Your task to perform on an android device: Is it going to rain today? Image 0: 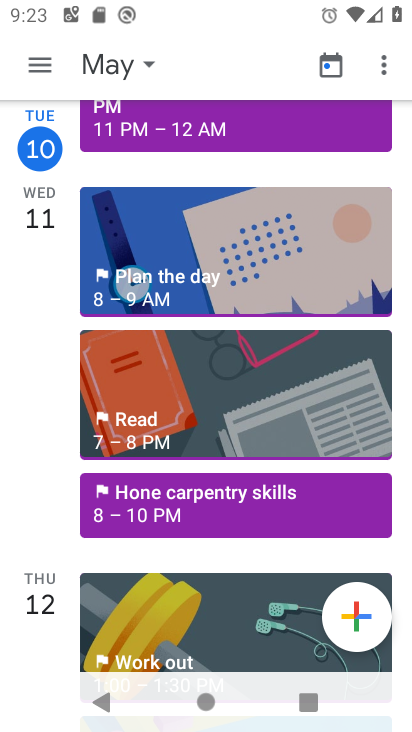
Step 0: press home button
Your task to perform on an android device: Is it going to rain today? Image 1: 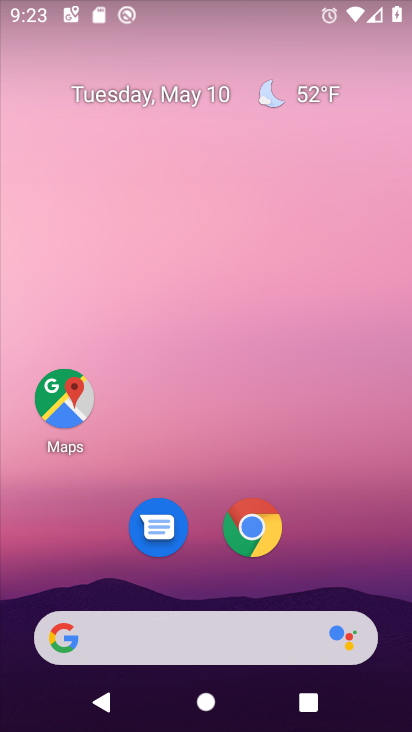
Step 1: click (267, 518)
Your task to perform on an android device: Is it going to rain today? Image 2: 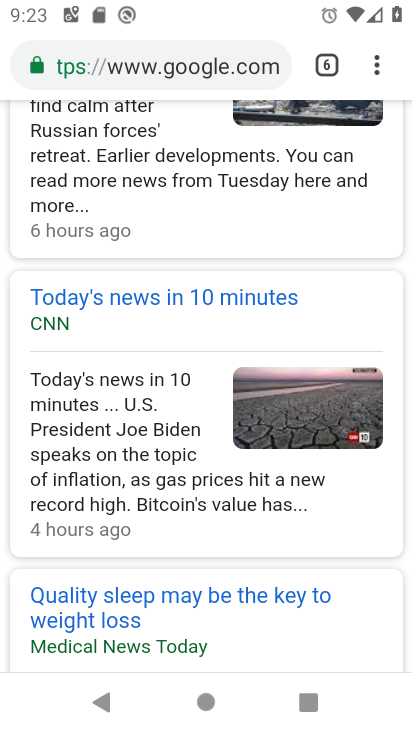
Step 2: click (326, 70)
Your task to perform on an android device: Is it going to rain today? Image 3: 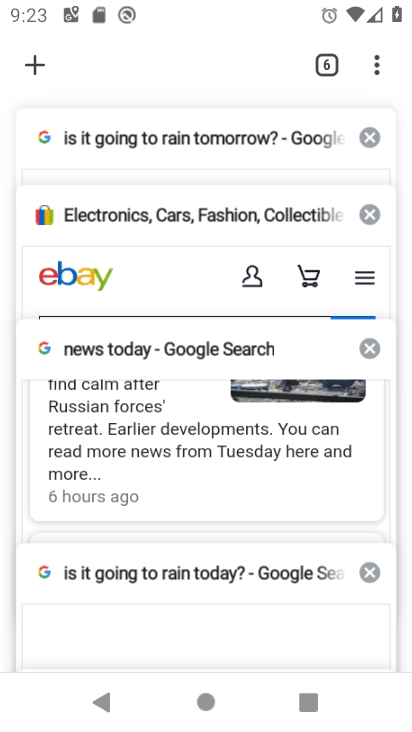
Step 3: drag from (196, 158) to (203, 262)
Your task to perform on an android device: Is it going to rain today? Image 4: 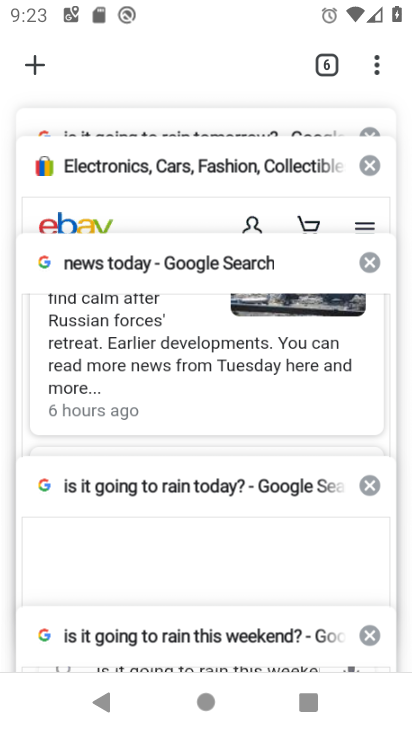
Step 4: click (177, 548)
Your task to perform on an android device: Is it going to rain today? Image 5: 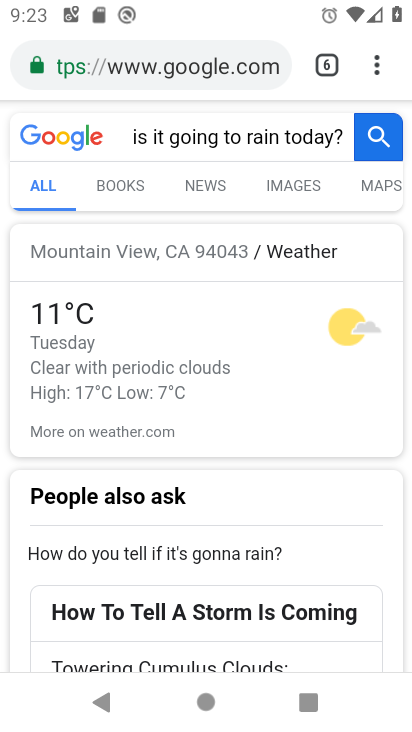
Step 5: task complete